Your task to perform on an android device: Search for corsair k70 on bestbuy.com, select the first entry, add it to the cart, then select checkout. Image 0: 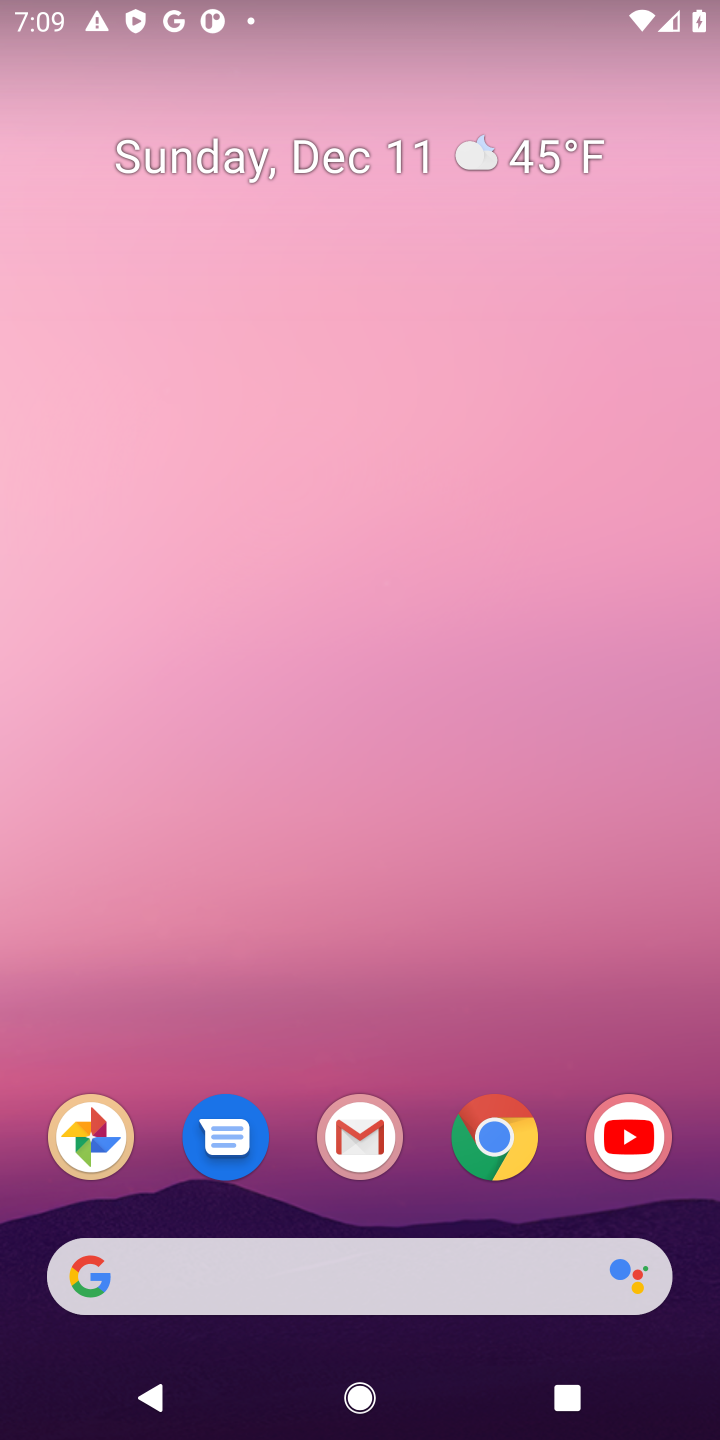
Step 0: click (471, 1132)
Your task to perform on an android device: Search for corsair k70 on bestbuy.com, select the first entry, add it to the cart, then select checkout. Image 1: 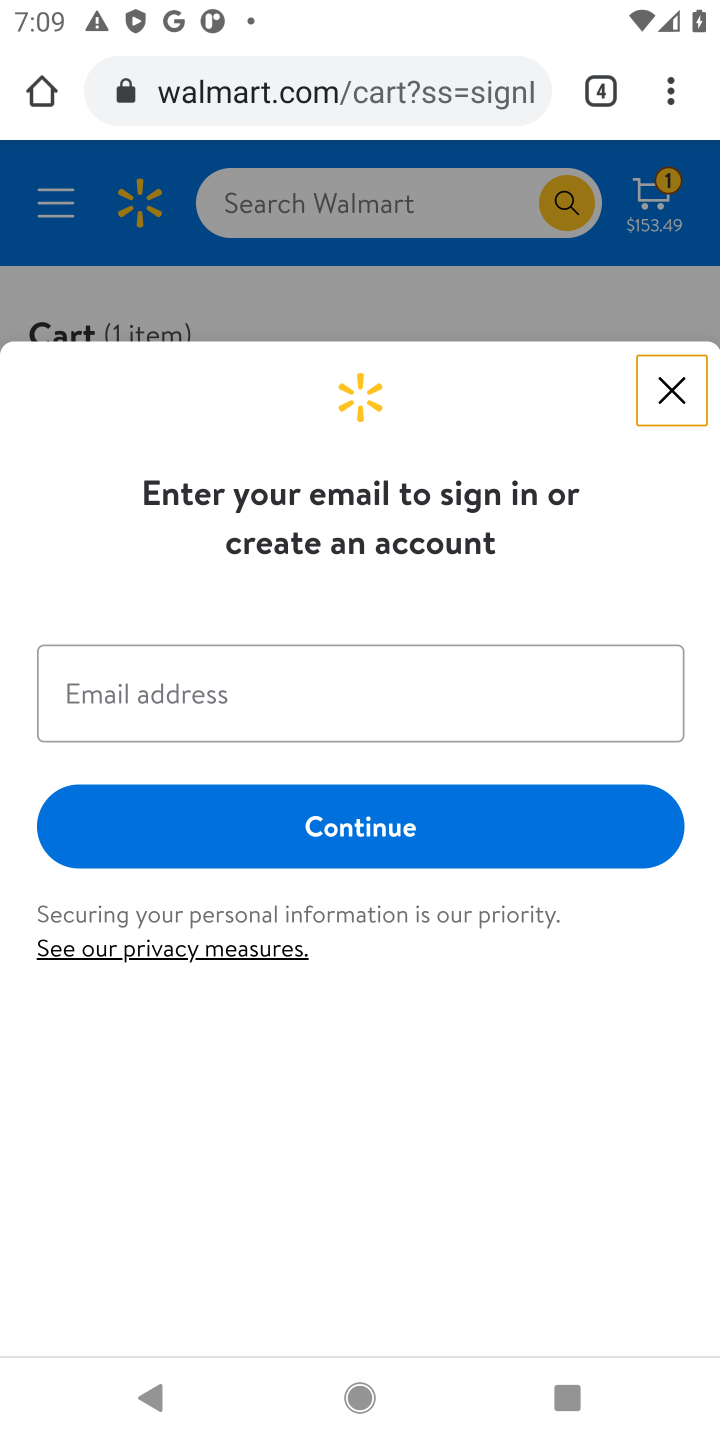
Step 1: click (261, 94)
Your task to perform on an android device: Search for corsair k70 on bestbuy.com, select the first entry, add it to the cart, then select checkout. Image 2: 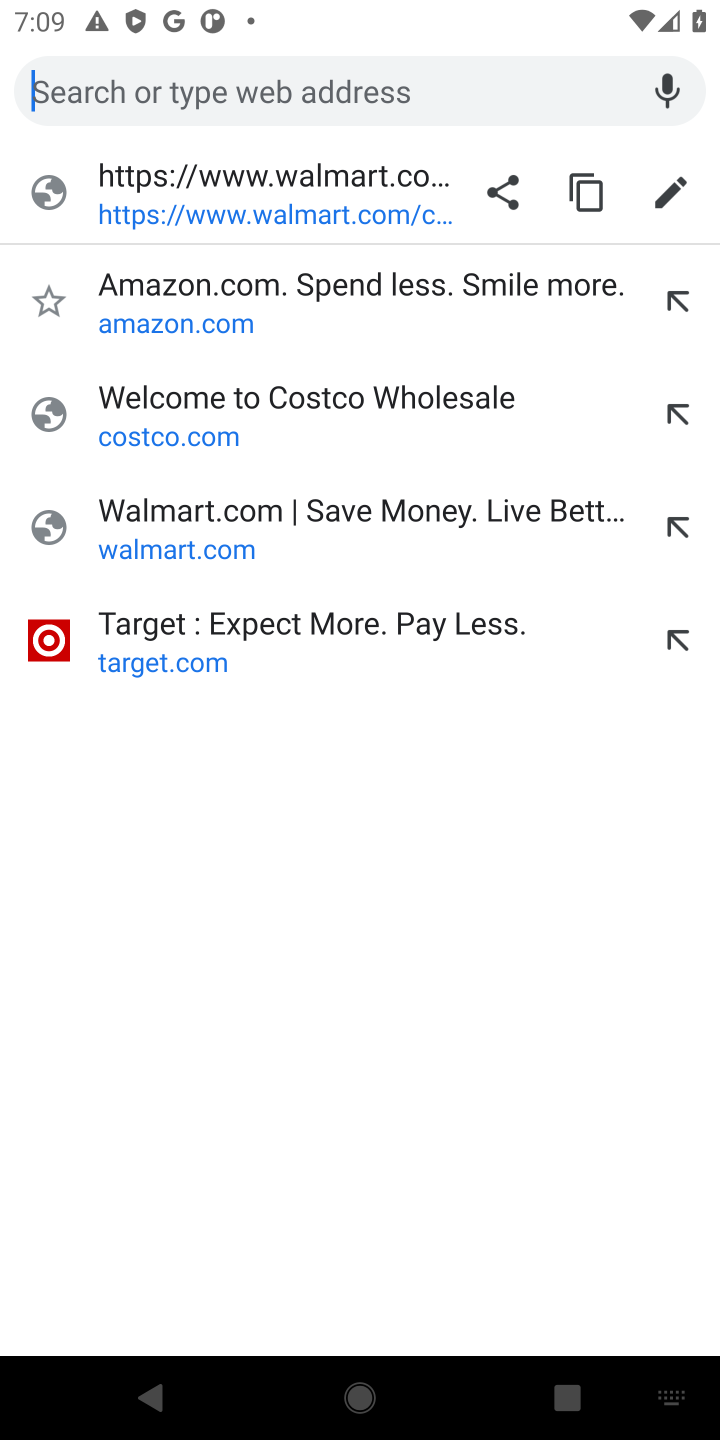
Step 2: type "bestbuy"
Your task to perform on an android device: Search for corsair k70 on bestbuy.com, select the first entry, add it to the cart, then select checkout. Image 3: 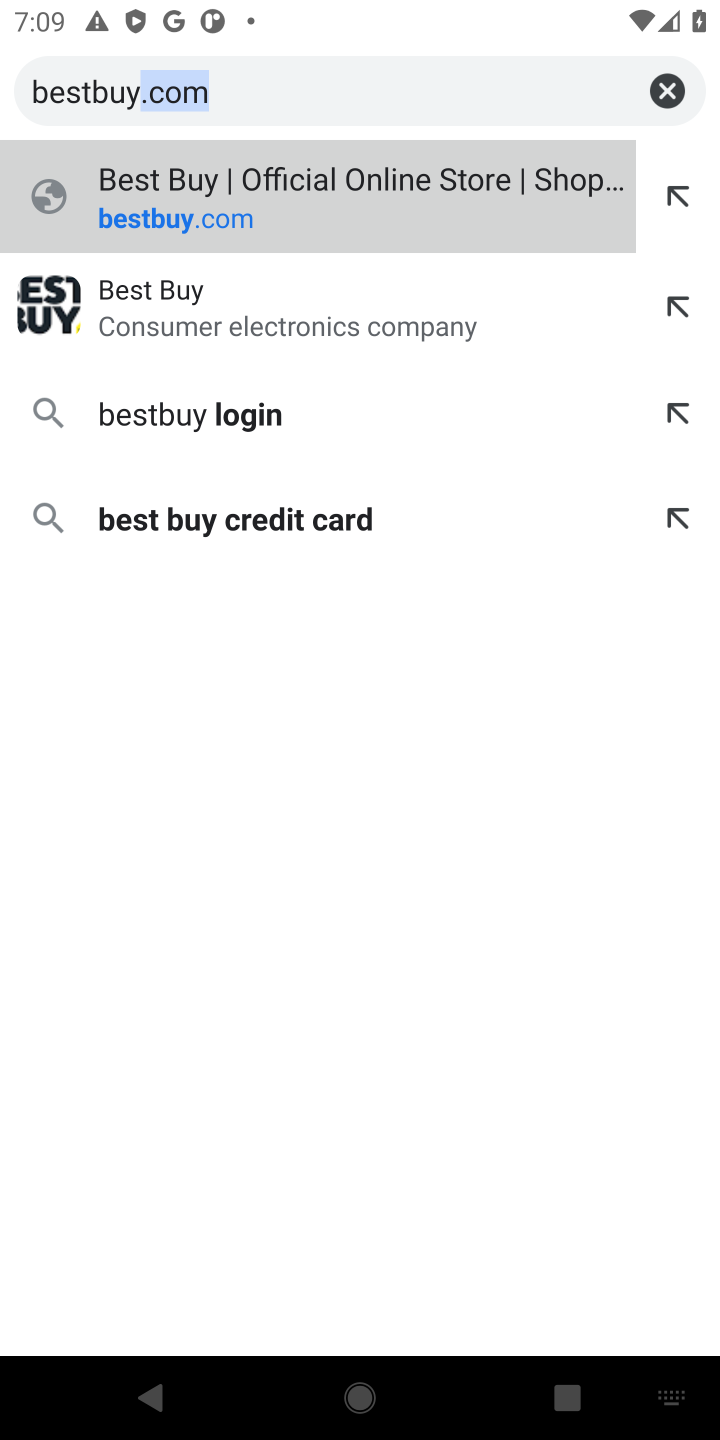
Step 3: click (256, 220)
Your task to perform on an android device: Search for corsair k70 on bestbuy.com, select the first entry, add it to the cart, then select checkout. Image 4: 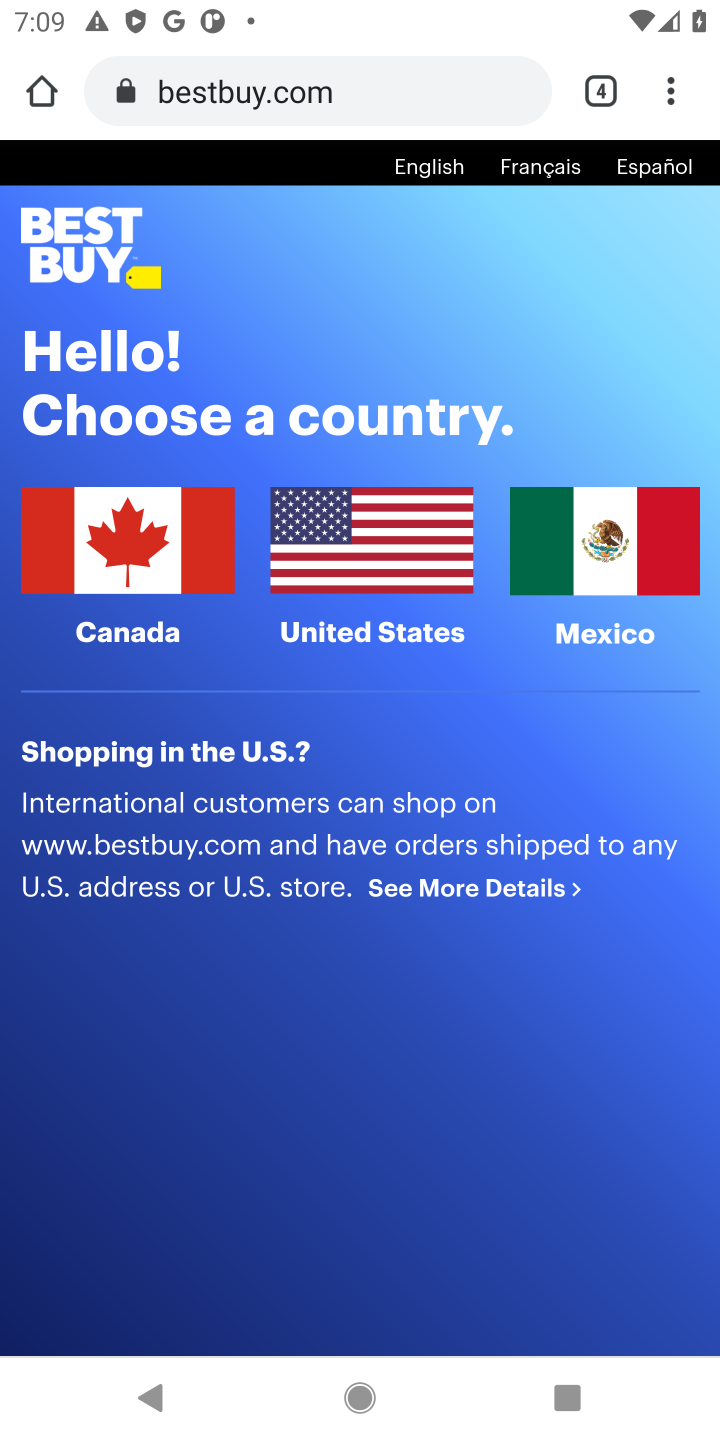
Step 4: click (329, 489)
Your task to perform on an android device: Search for corsair k70 on bestbuy.com, select the first entry, add it to the cart, then select checkout. Image 5: 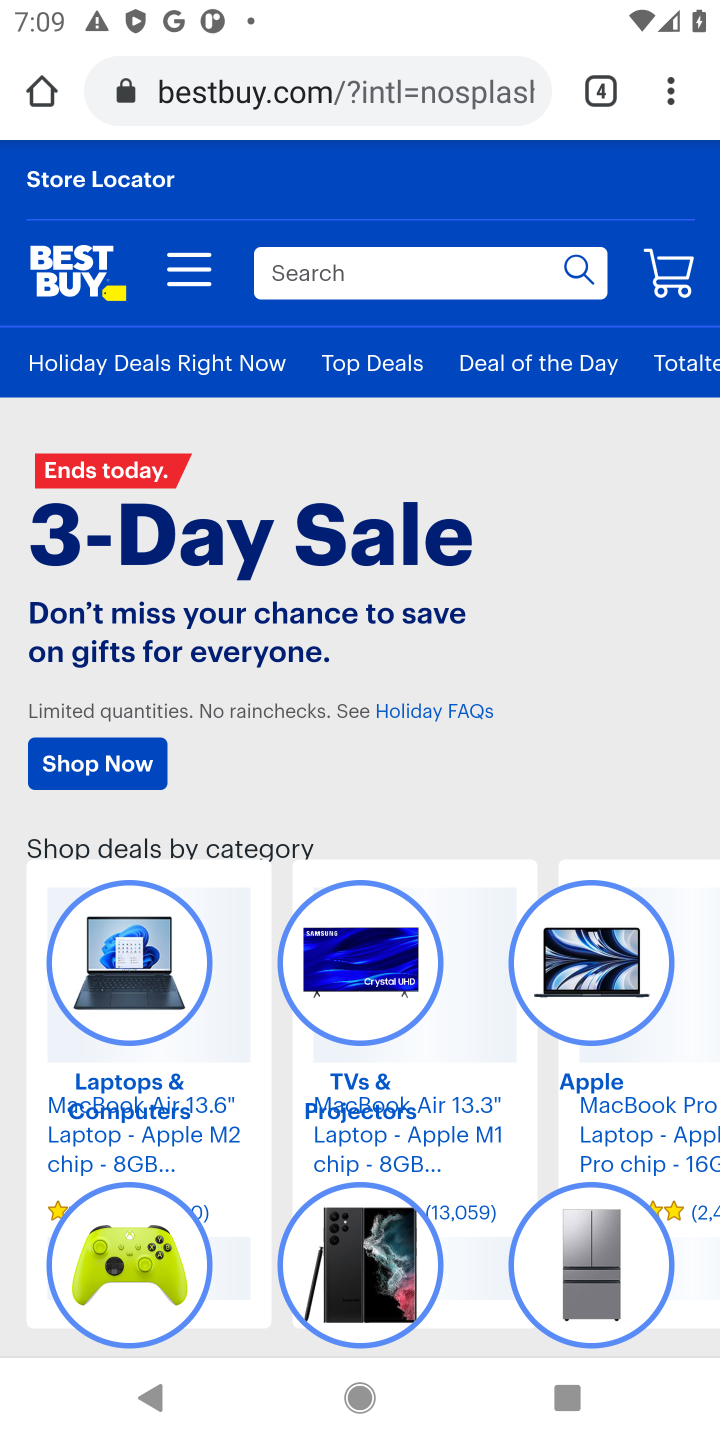
Step 5: click (398, 262)
Your task to perform on an android device: Search for corsair k70 on bestbuy.com, select the first entry, add it to the cart, then select checkout. Image 6: 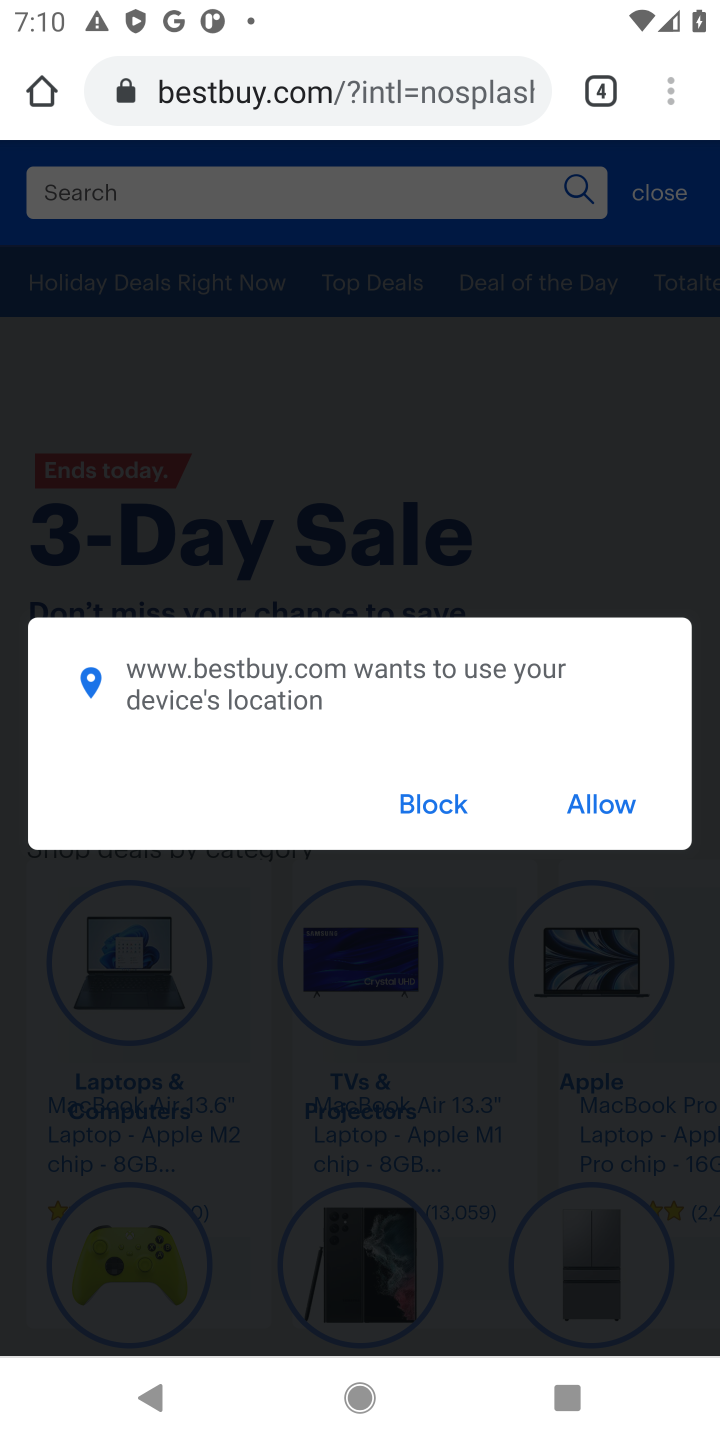
Step 6: click (572, 800)
Your task to perform on an android device: Search for corsair k70 on bestbuy.com, select the first entry, add it to the cart, then select checkout. Image 7: 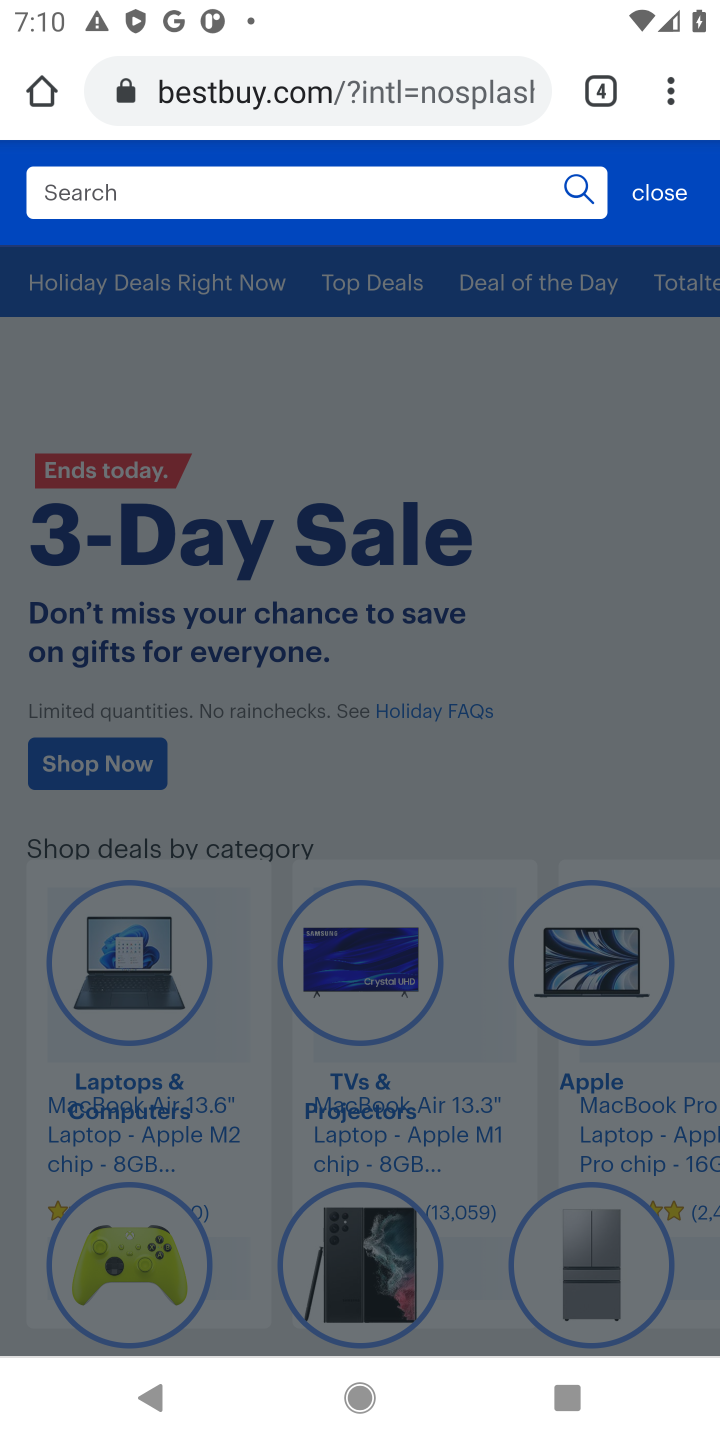
Step 7: click (152, 192)
Your task to perform on an android device: Search for corsair k70 on bestbuy.com, select the first entry, add it to the cart, then select checkout. Image 8: 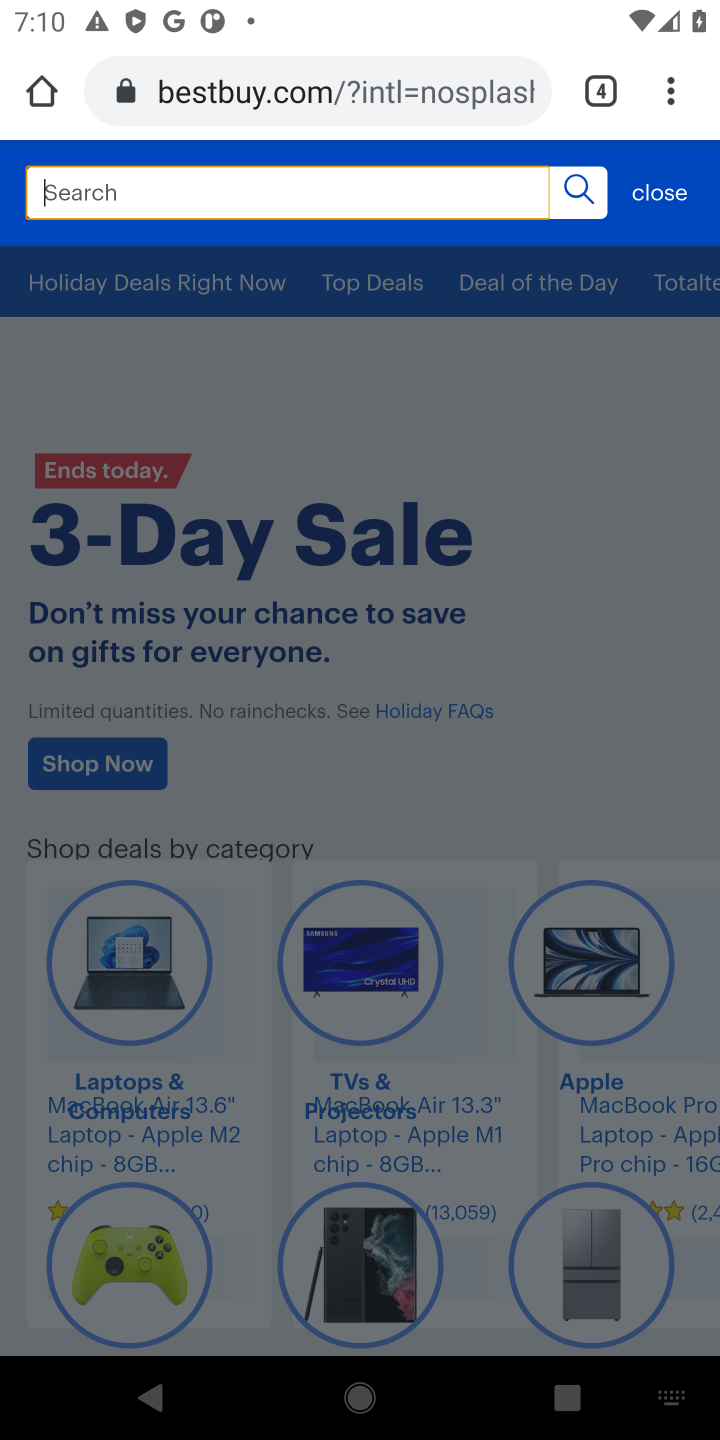
Step 8: click (152, 192)
Your task to perform on an android device: Search for corsair k70 on bestbuy.com, select the first entry, add it to the cart, then select checkout. Image 9: 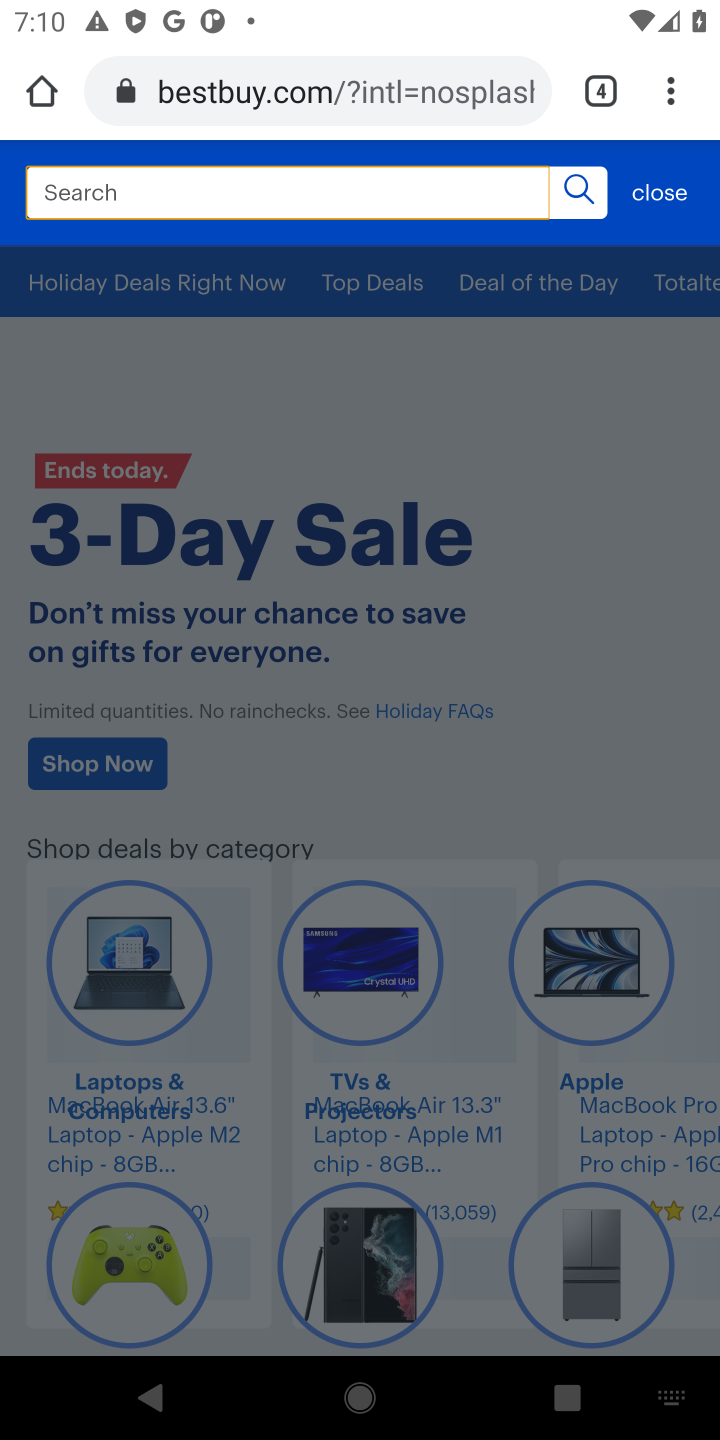
Step 9: click (152, 192)
Your task to perform on an android device: Search for corsair k70 on bestbuy.com, select the first entry, add it to the cart, then select checkout. Image 10: 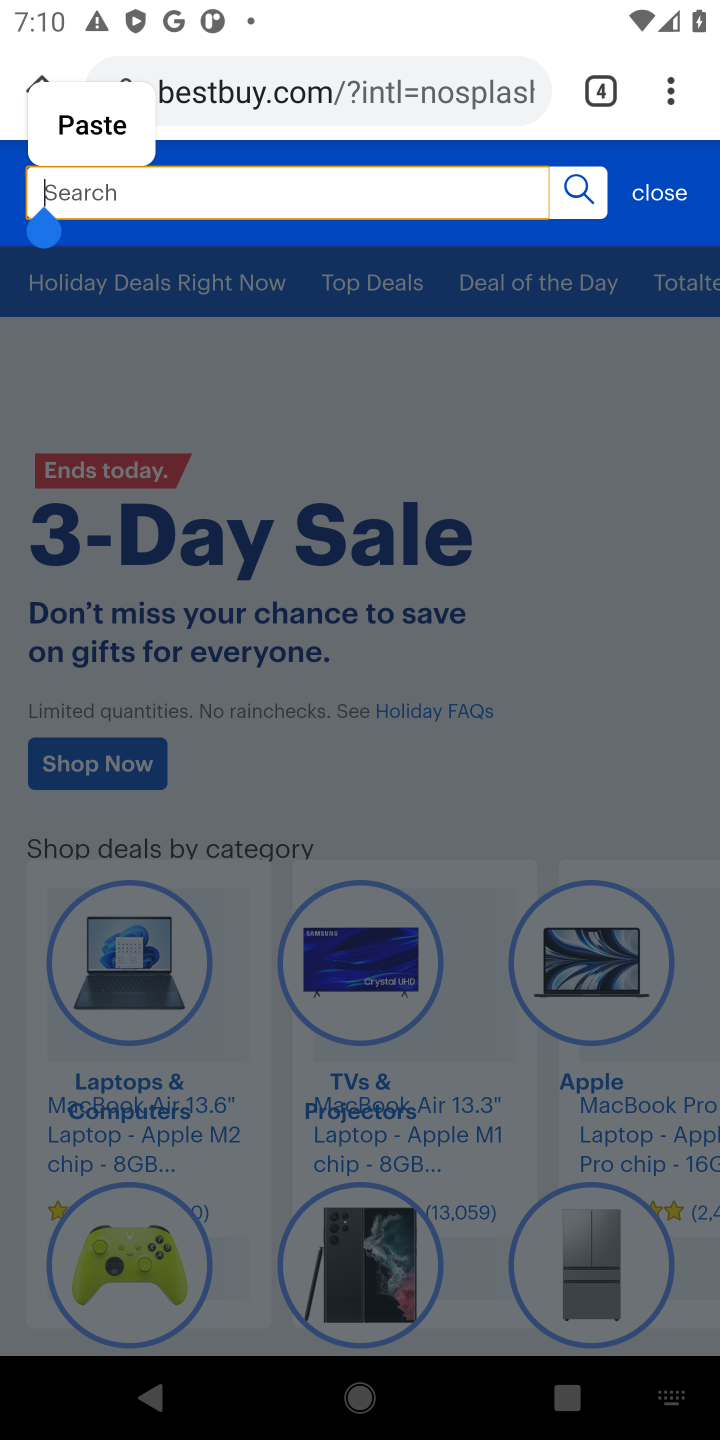
Step 10: type " corsair k70 "
Your task to perform on an android device: Search for corsair k70 on bestbuy.com, select the first entry, add it to the cart, then select checkout. Image 11: 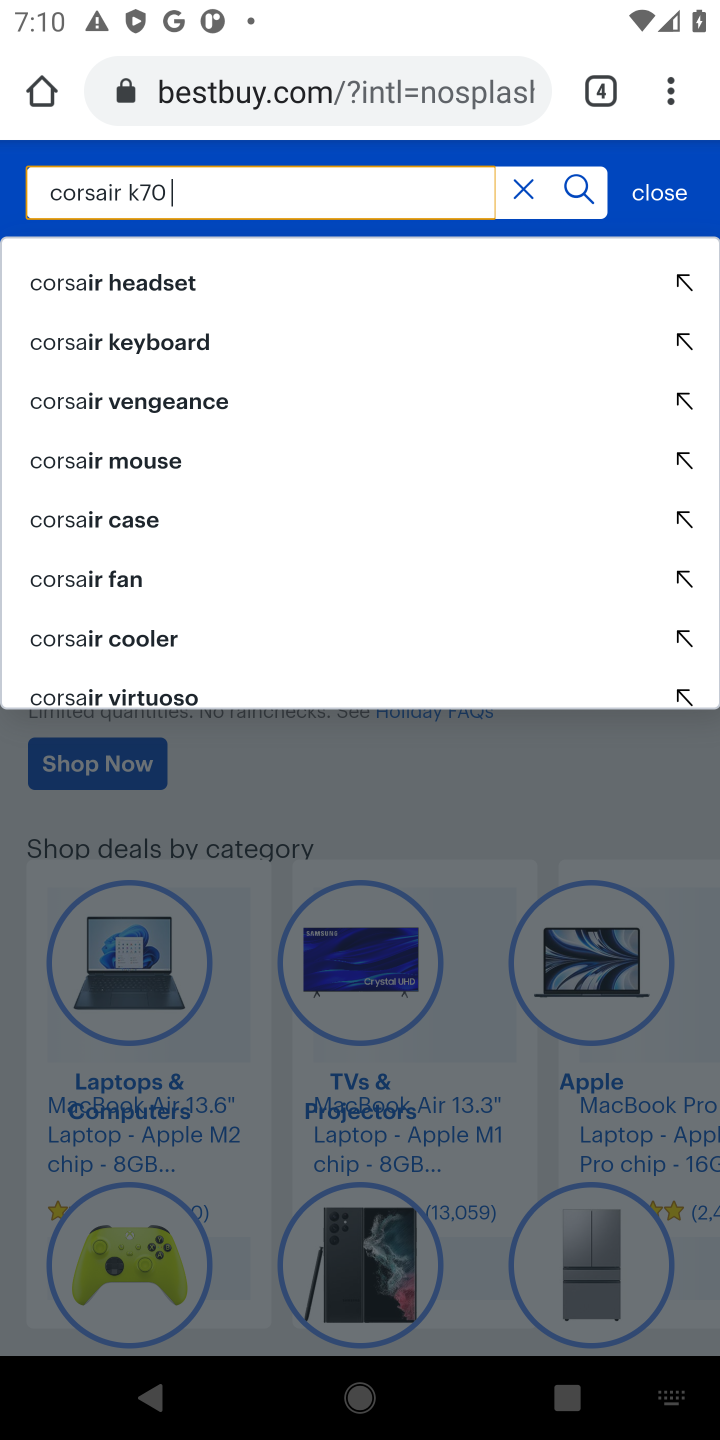
Step 11: click (591, 191)
Your task to perform on an android device: Search for corsair k70 on bestbuy.com, select the first entry, add it to the cart, then select checkout. Image 12: 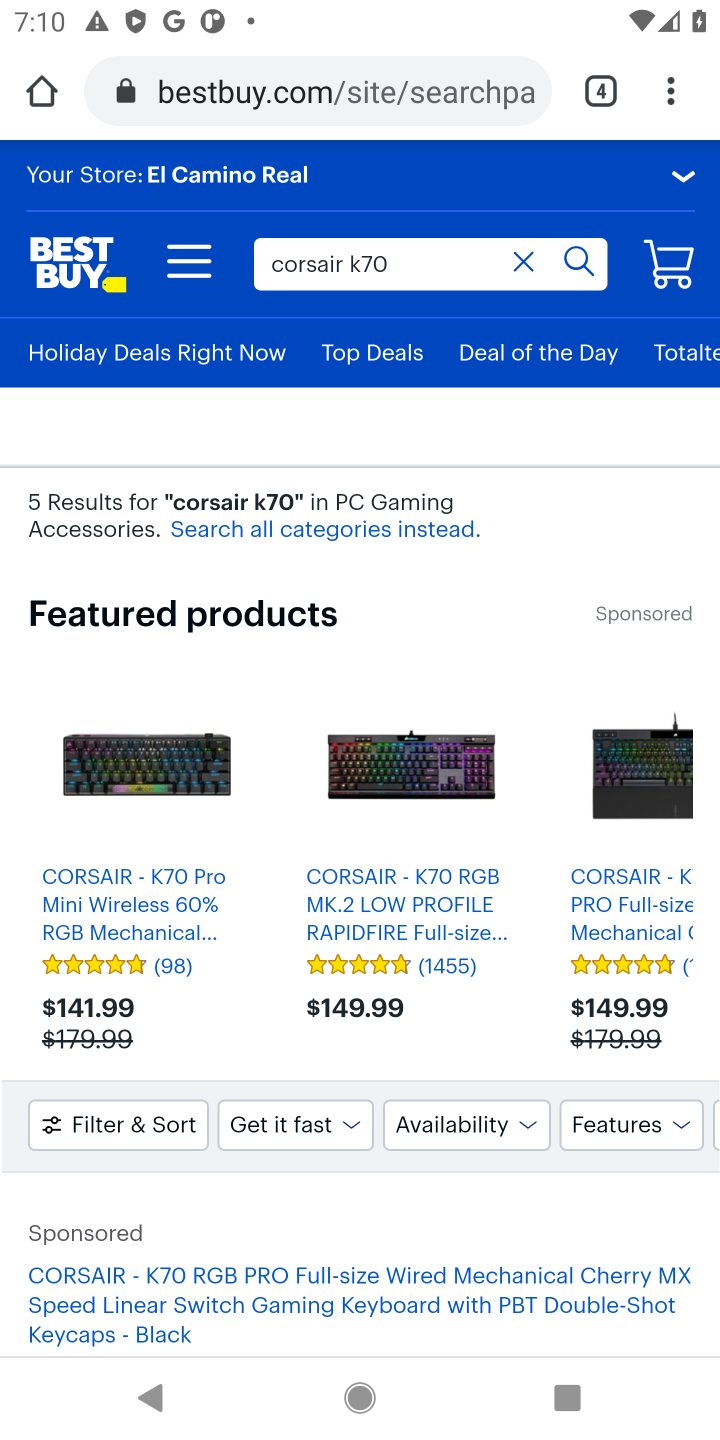
Step 12: click (98, 878)
Your task to perform on an android device: Search for corsair k70 on bestbuy.com, select the first entry, add it to the cart, then select checkout. Image 13: 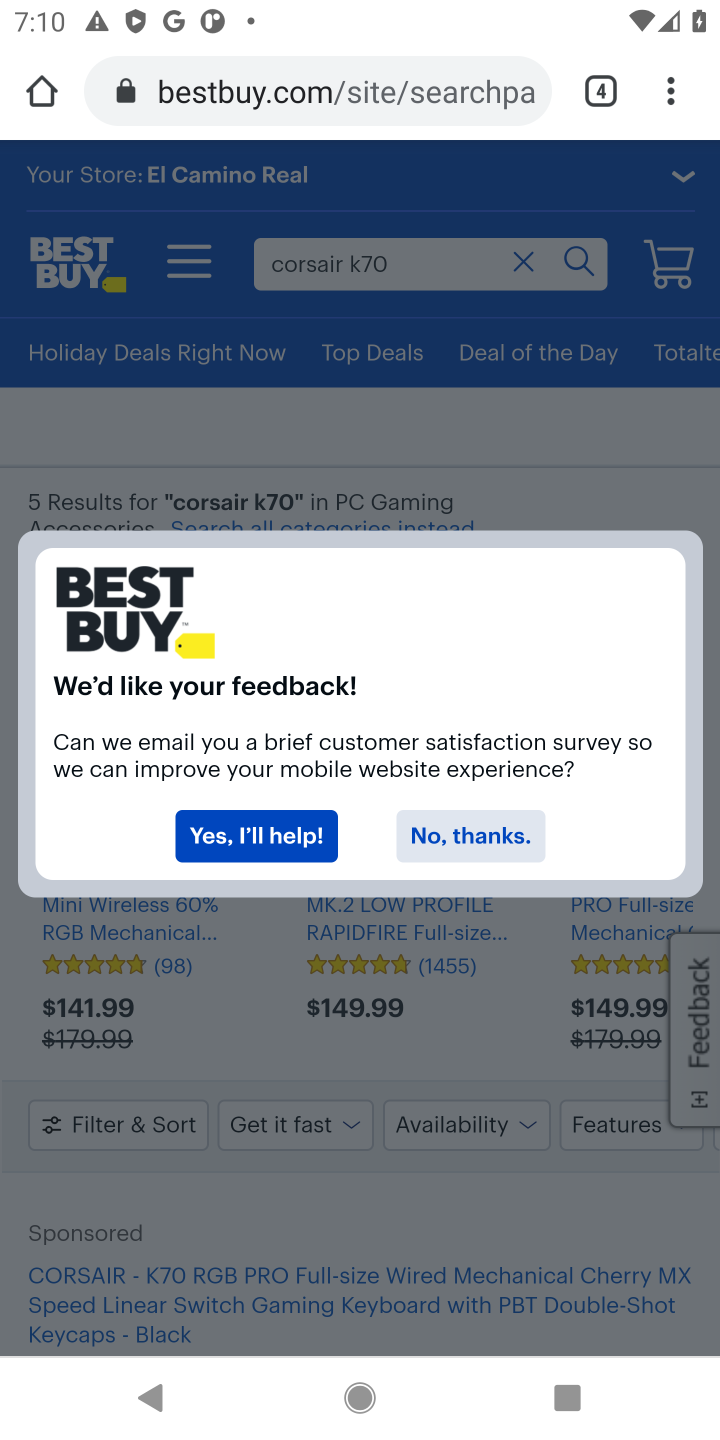
Step 13: click (486, 830)
Your task to perform on an android device: Search for corsair k70 on bestbuy.com, select the first entry, add it to the cart, then select checkout. Image 14: 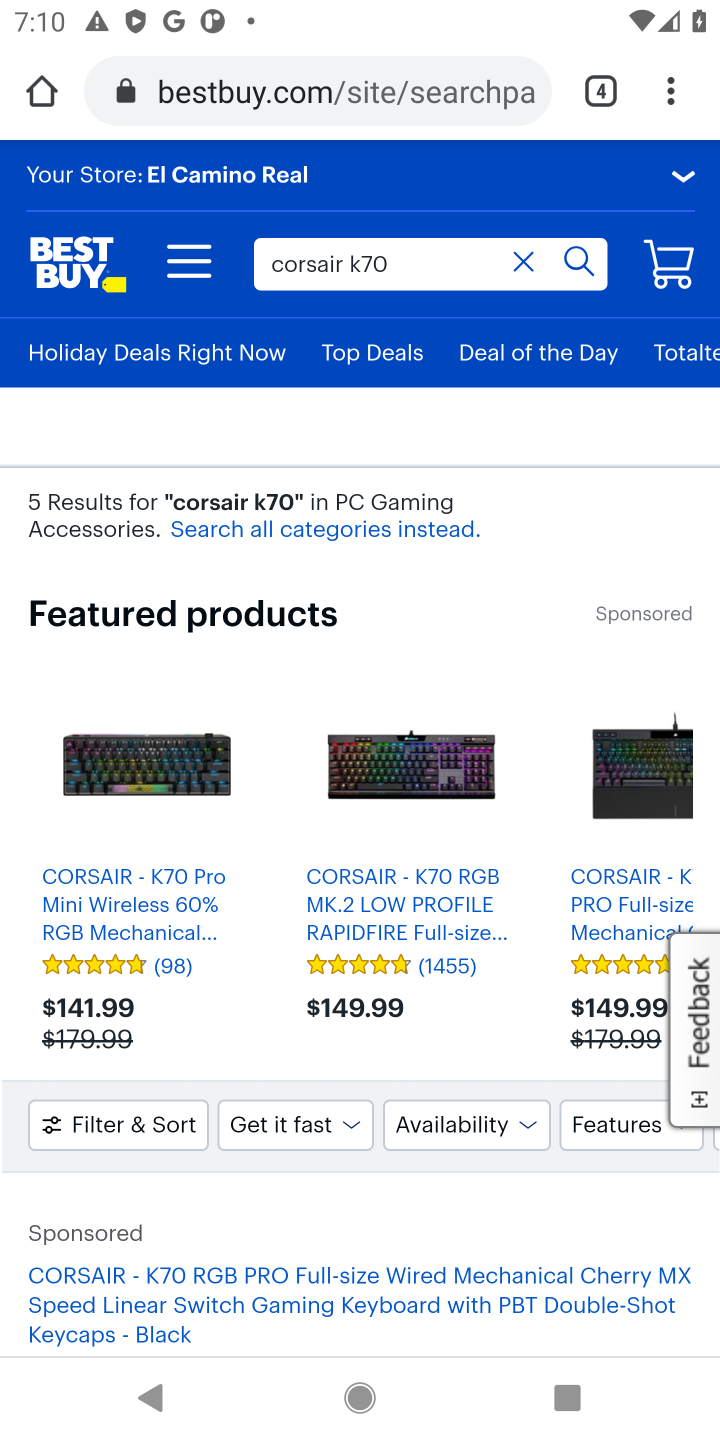
Step 14: click (119, 938)
Your task to perform on an android device: Search for corsair k70 on bestbuy.com, select the first entry, add it to the cart, then select checkout. Image 15: 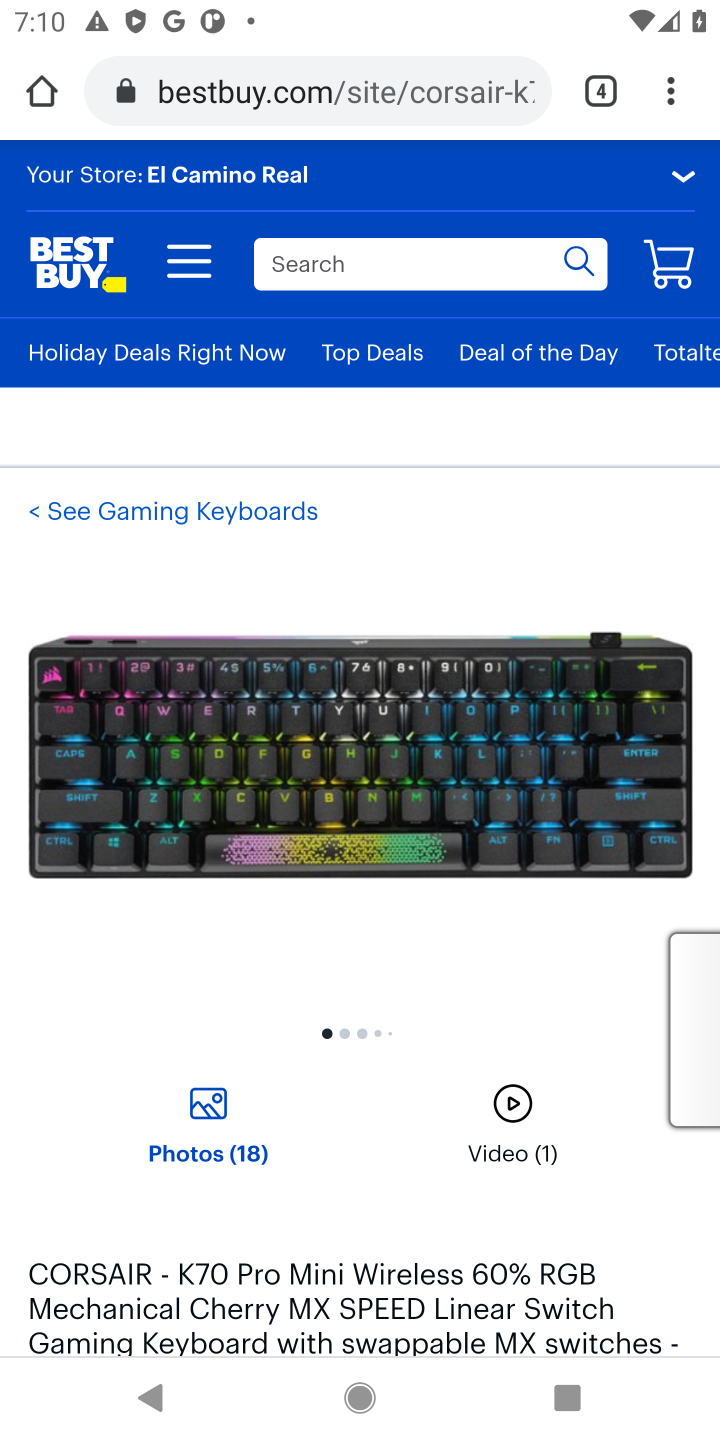
Step 15: drag from (353, 1255) to (420, 378)
Your task to perform on an android device: Search for corsair k70 on bestbuy.com, select the first entry, add it to the cart, then select checkout. Image 16: 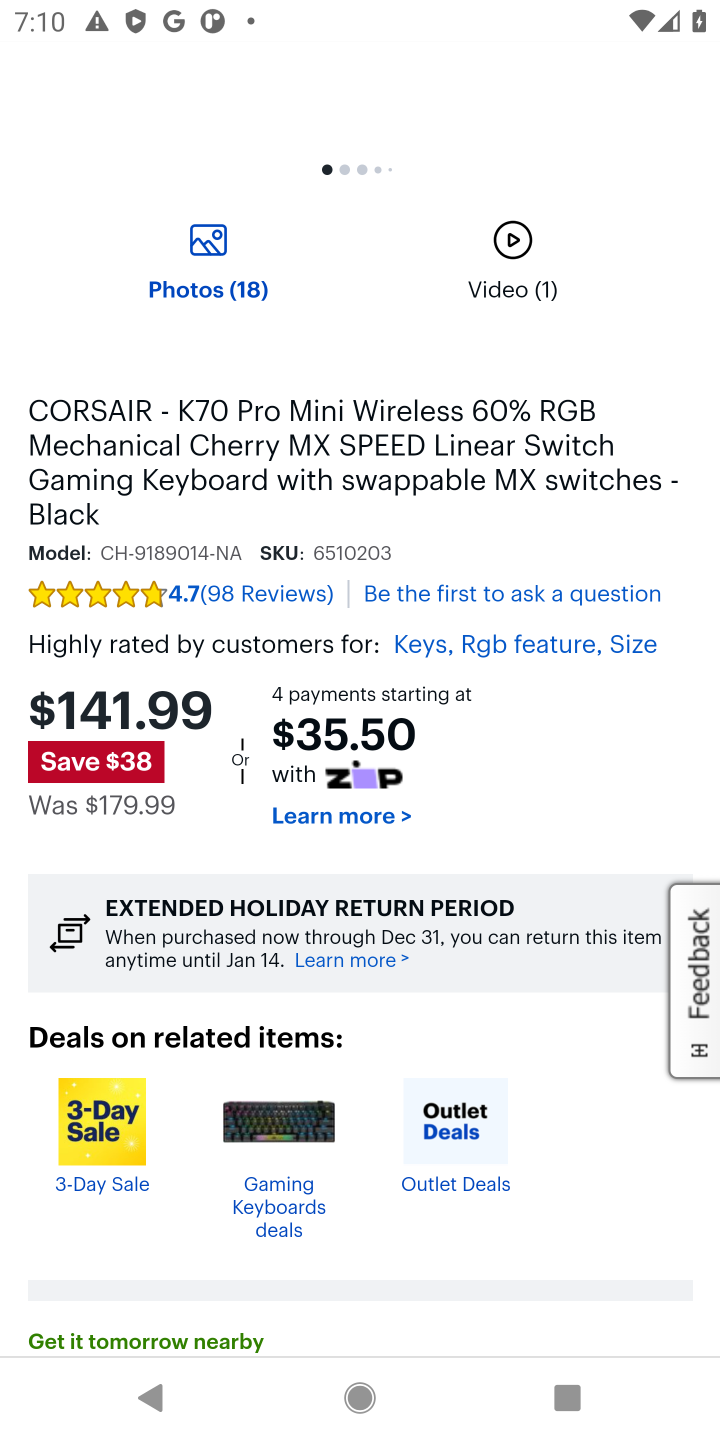
Step 16: drag from (587, 1206) to (529, 483)
Your task to perform on an android device: Search for corsair k70 on bestbuy.com, select the first entry, add it to the cart, then select checkout. Image 17: 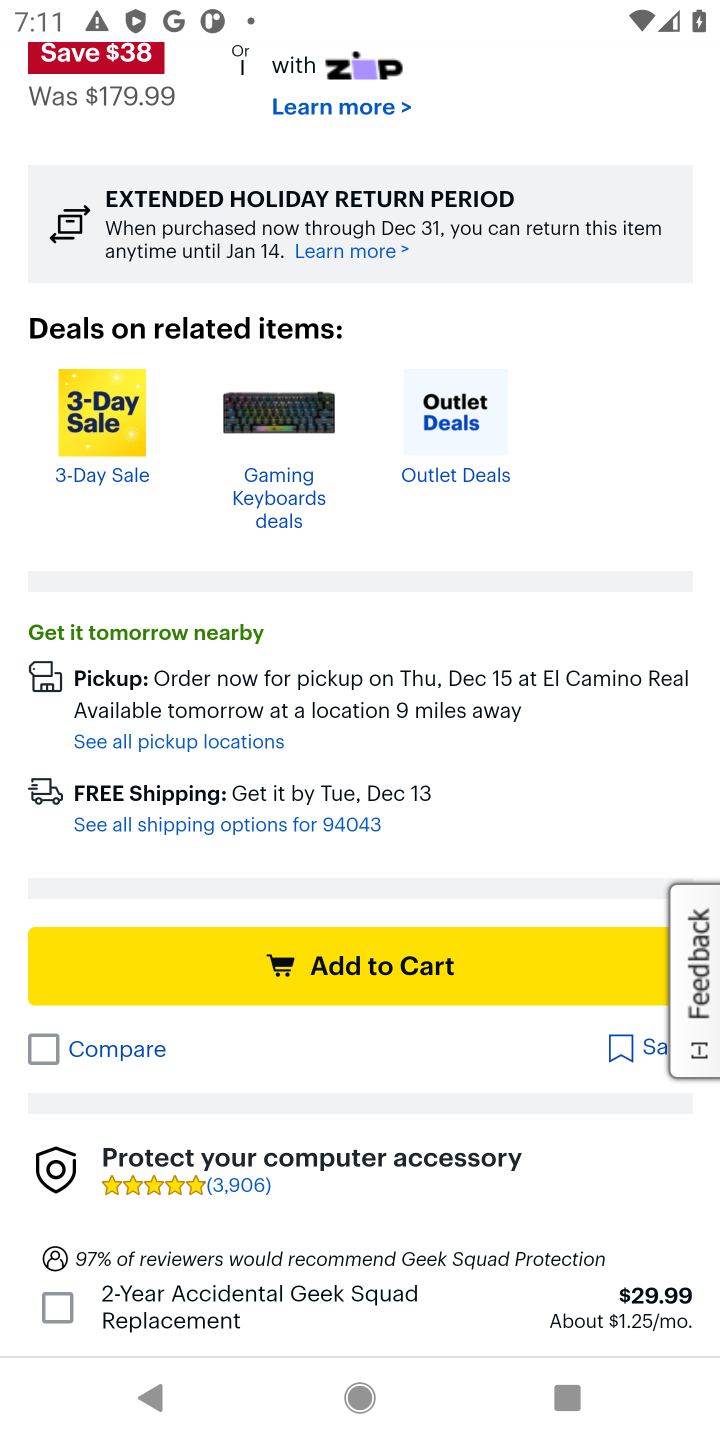
Step 17: drag from (368, 1230) to (491, 273)
Your task to perform on an android device: Search for corsair k70 on bestbuy.com, select the first entry, add it to the cart, then select checkout. Image 18: 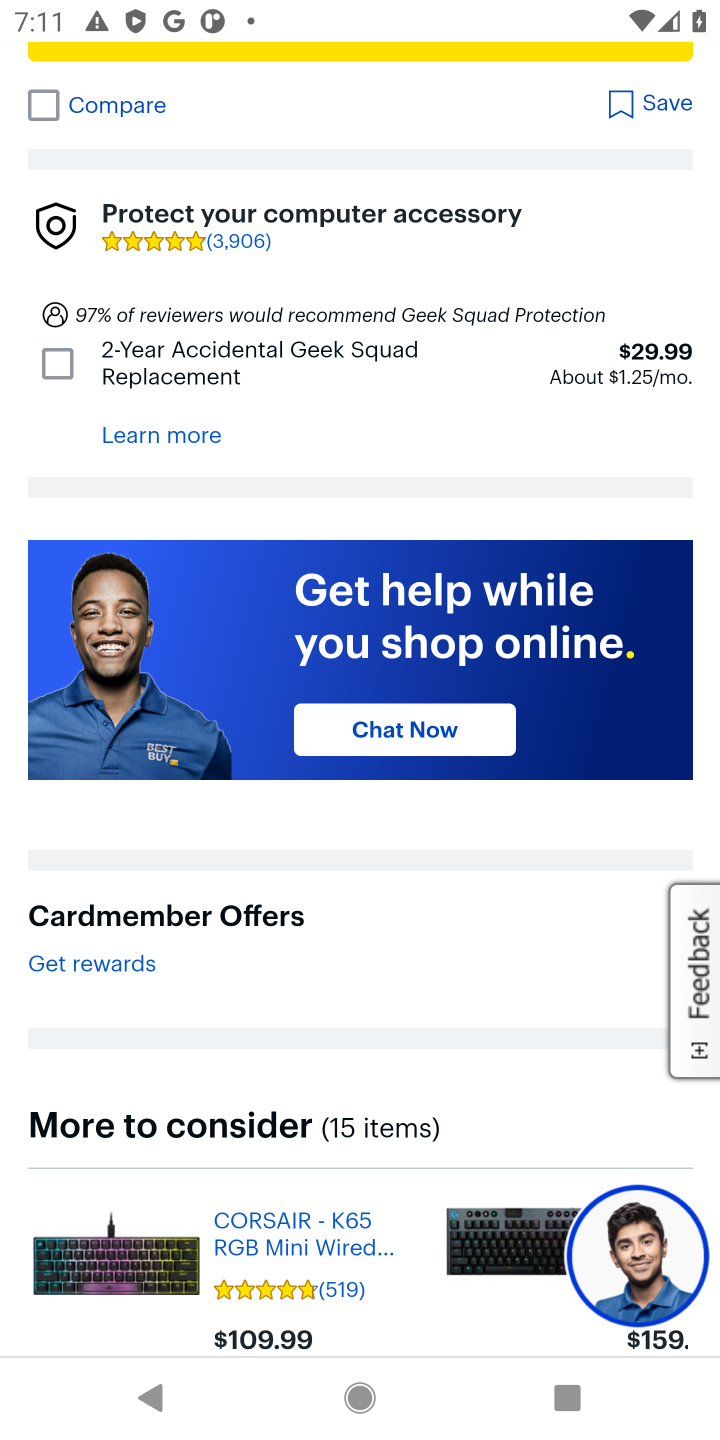
Step 18: drag from (365, 122) to (361, 843)
Your task to perform on an android device: Search for corsair k70 on bestbuy.com, select the first entry, add it to the cart, then select checkout. Image 19: 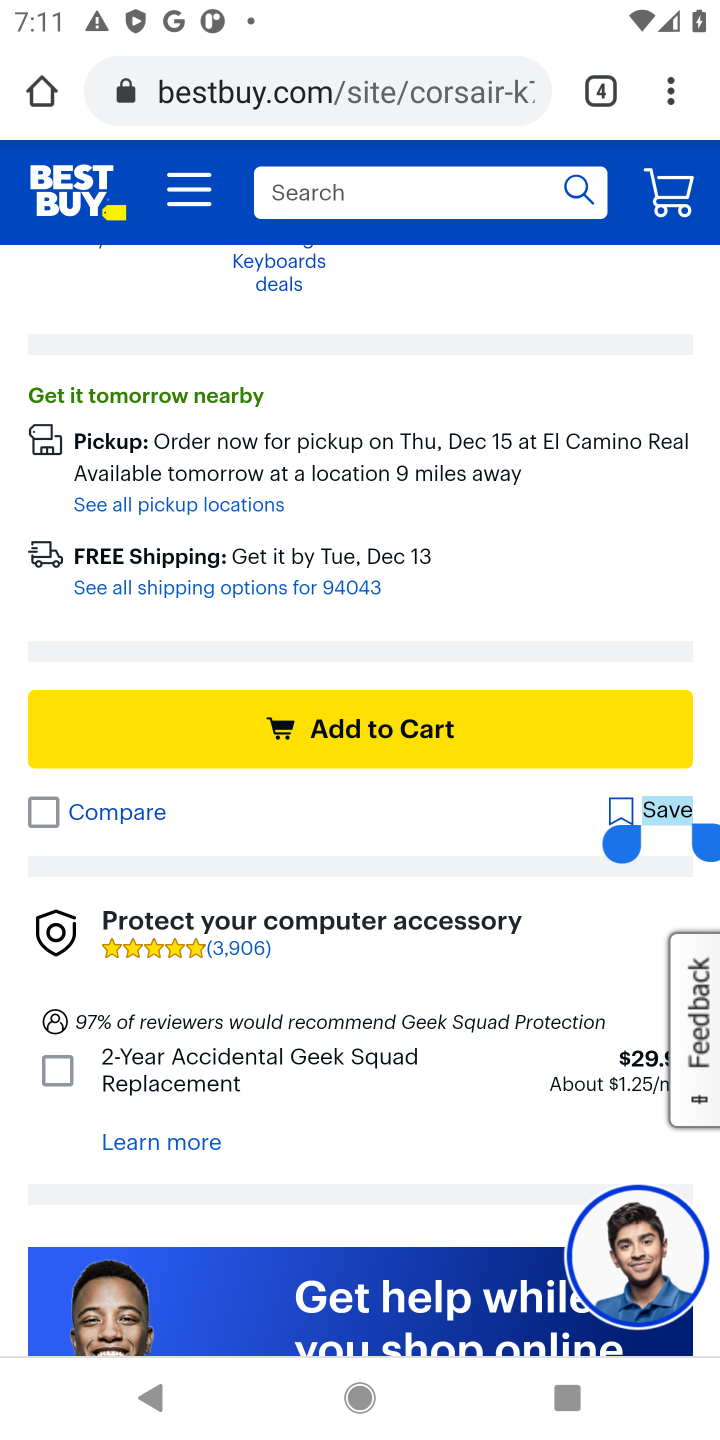
Step 19: click (328, 749)
Your task to perform on an android device: Search for corsair k70 on bestbuy.com, select the first entry, add it to the cart, then select checkout. Image 20: 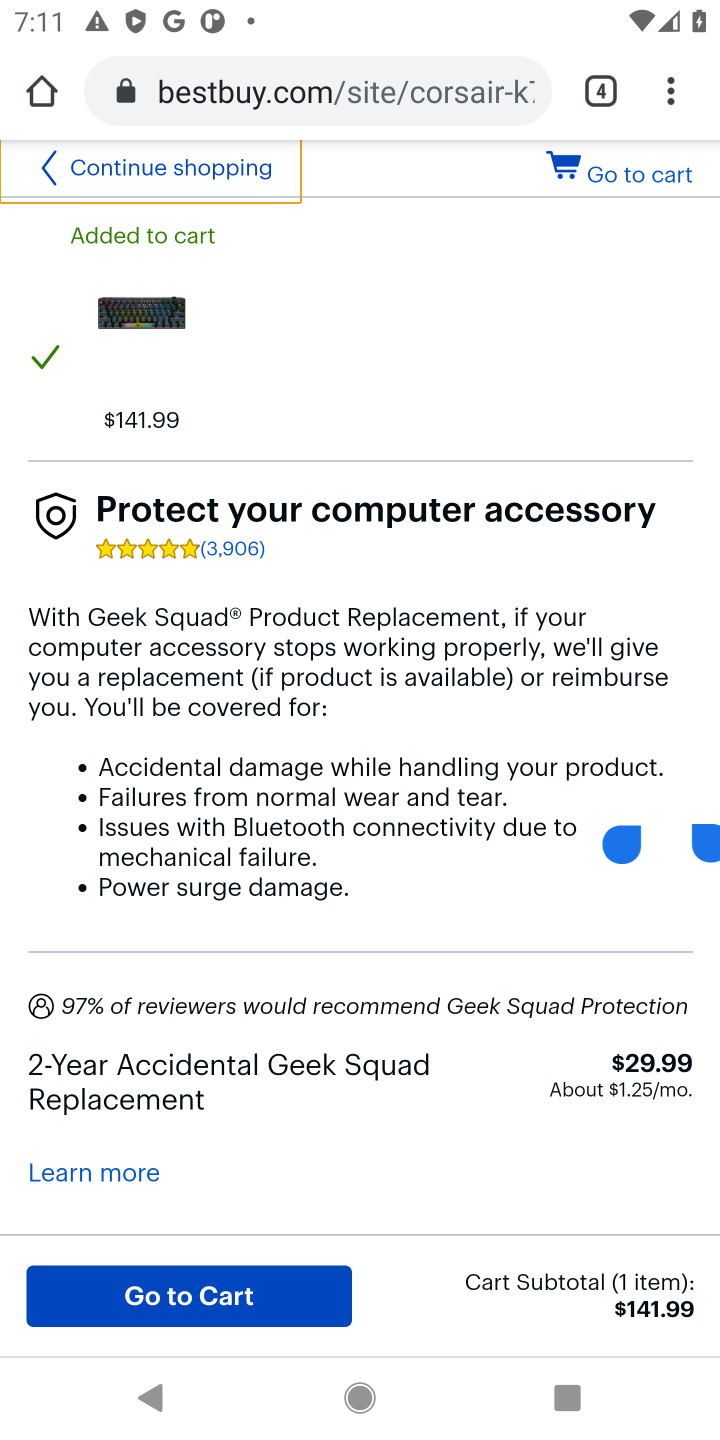
Step 20: click (283, 1296)
Your task to perform on an android device: Search for corsair k70 on bestbuy.com, select the first entry, add it to the cart, then select checkout. Image 21: 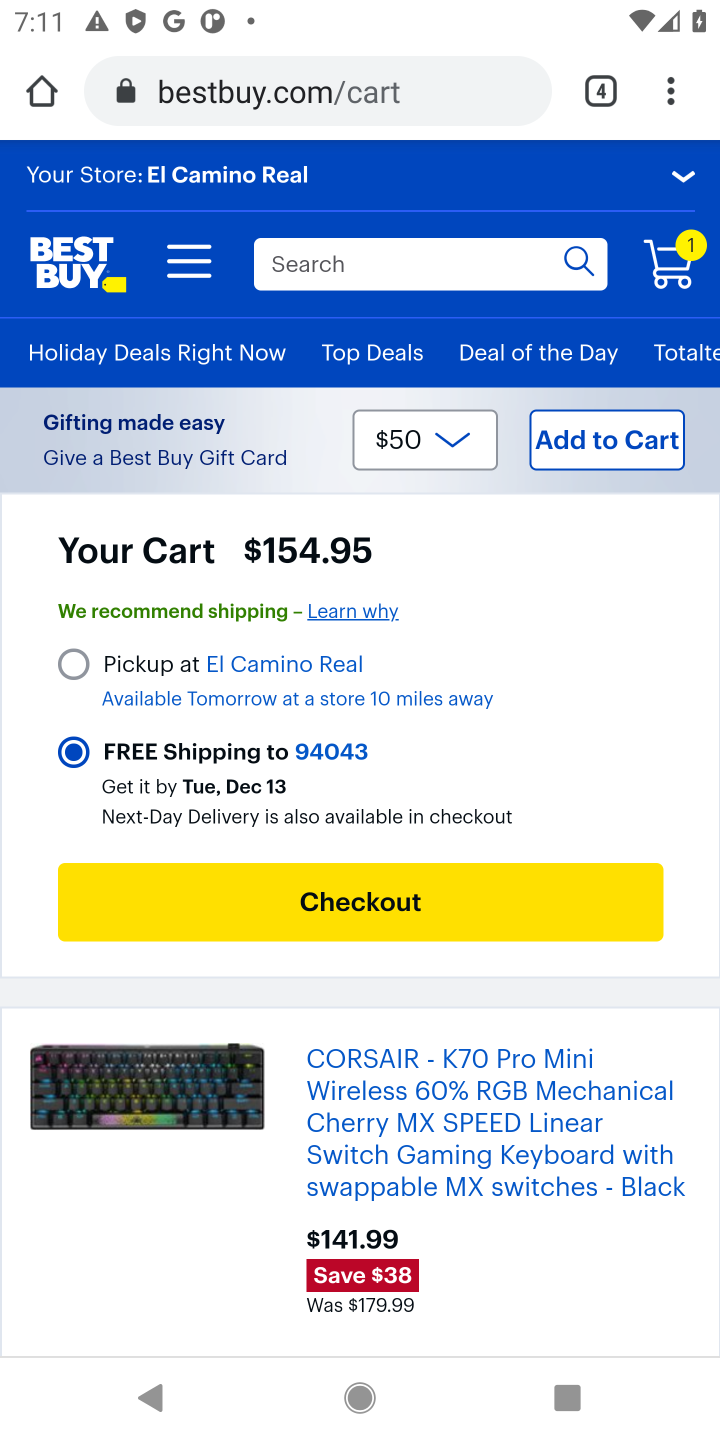
Step 21: click (514, 903)
Your task to perform on an android device: Search for corsair k70 on bestbuy.com, select the first entry, add it to the cart, then select checkout. Image 22: 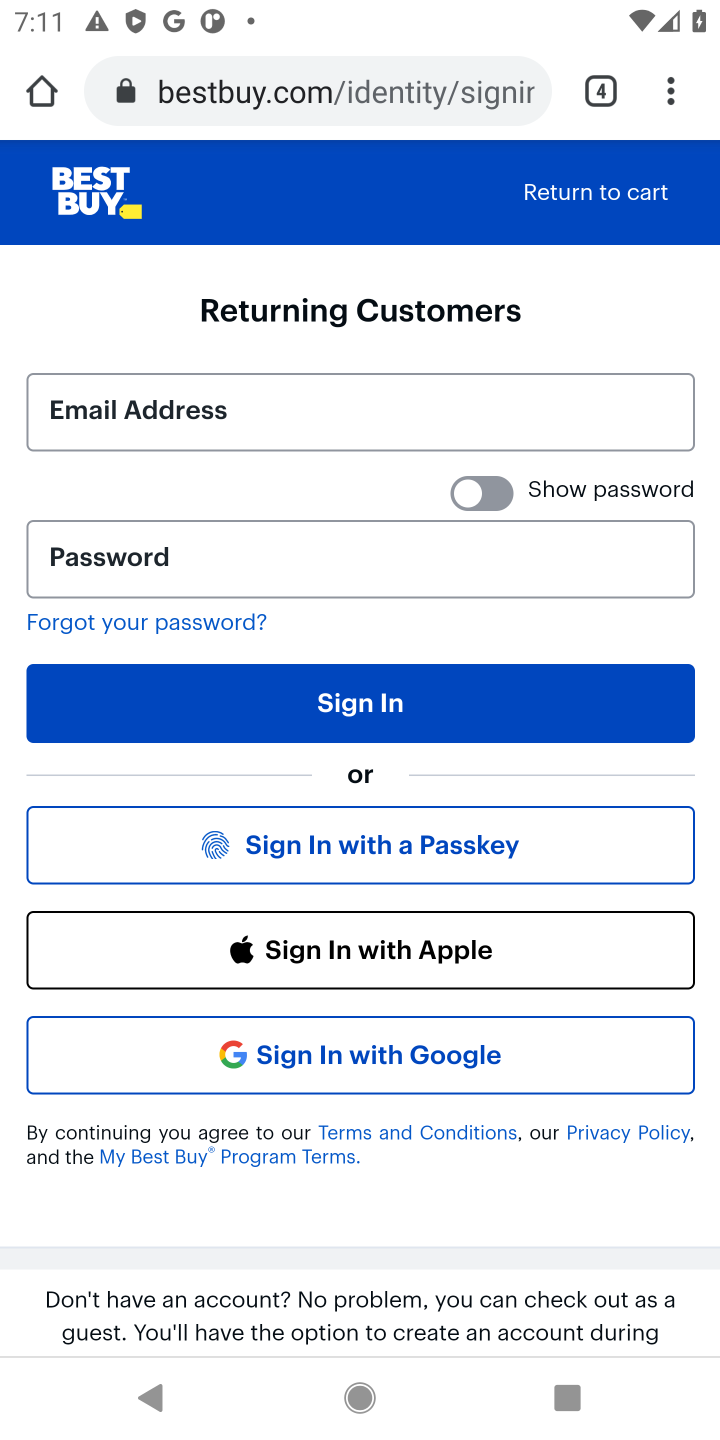
Step 22: task complete